Your task to perform on an android device: manage bookmarks in the chrome app Image 0: 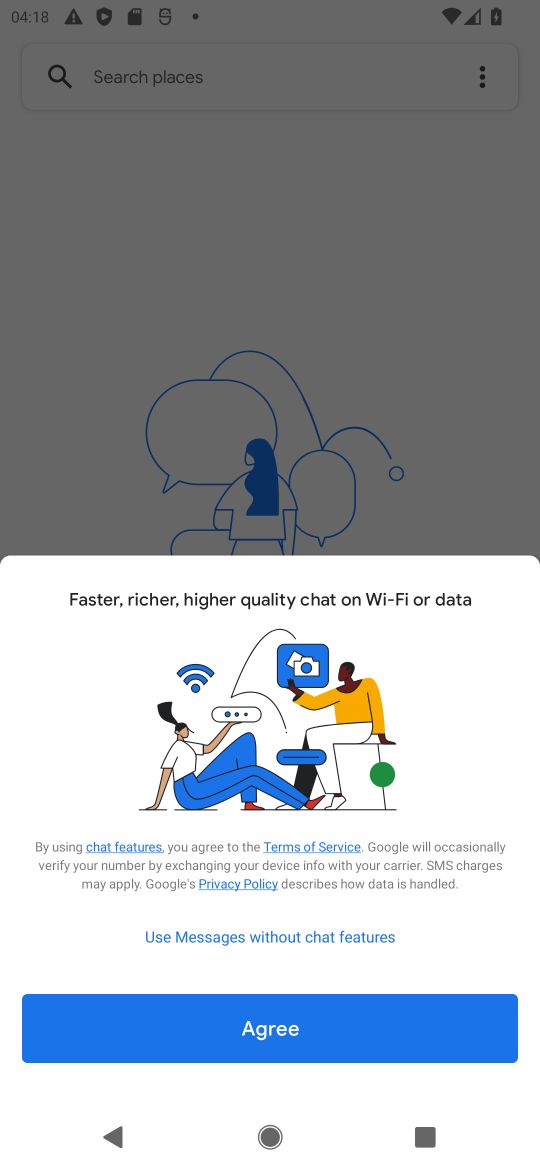
Step 0: press home button
Your task to perform on an android device: manage bookmarks in the chrome app Image 1: 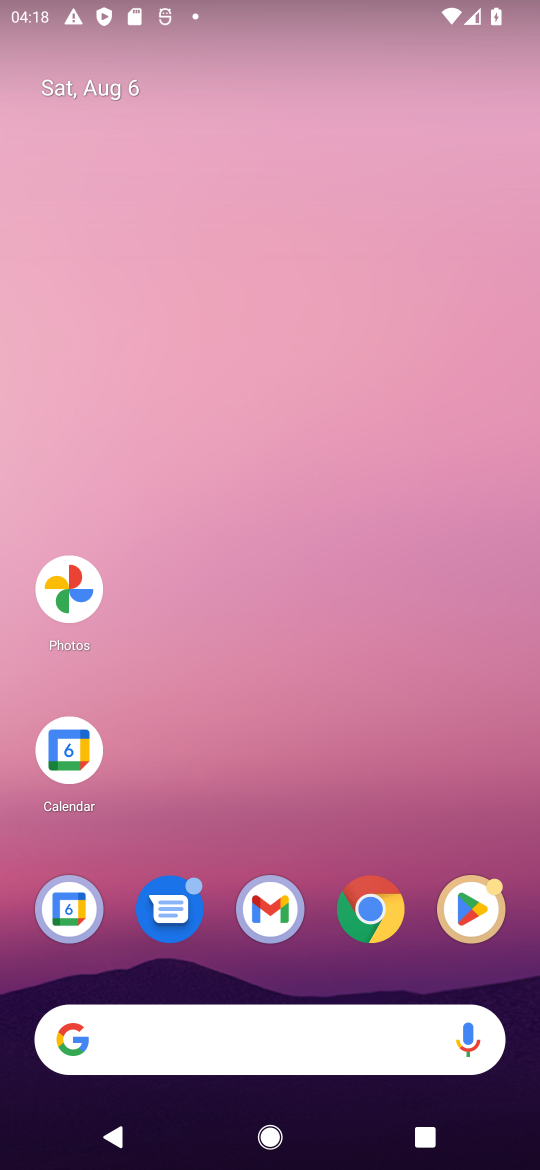
Step 1: click (360, 897)
Your task to perform on an android device: manage bookmarks in the chrome app Image 2: 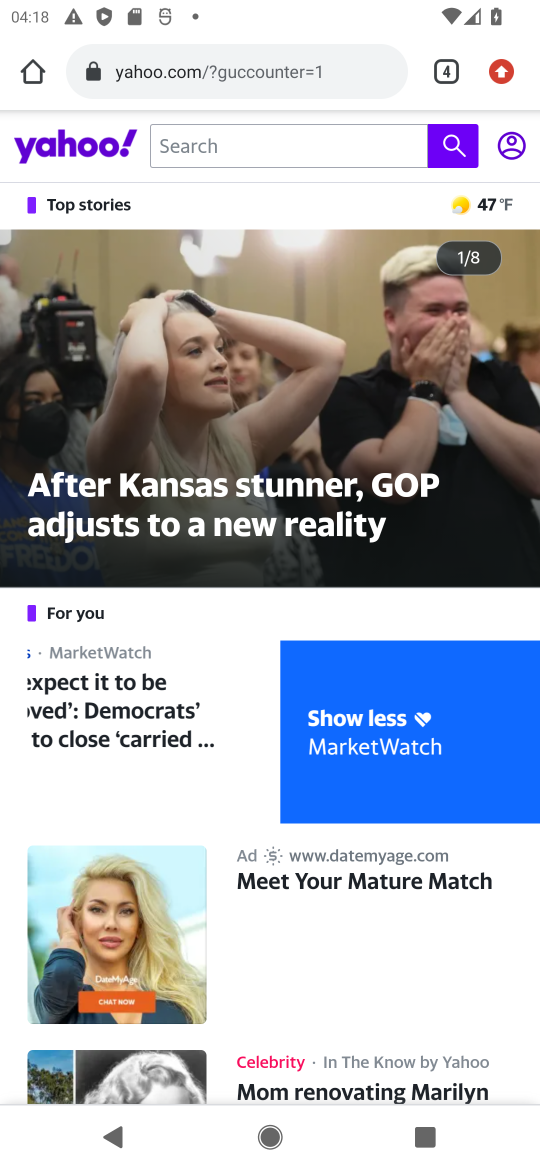
Step 2: click (505, 71)
Your task to perform on an android device: manage bookmarks in the chrome app Image 3: 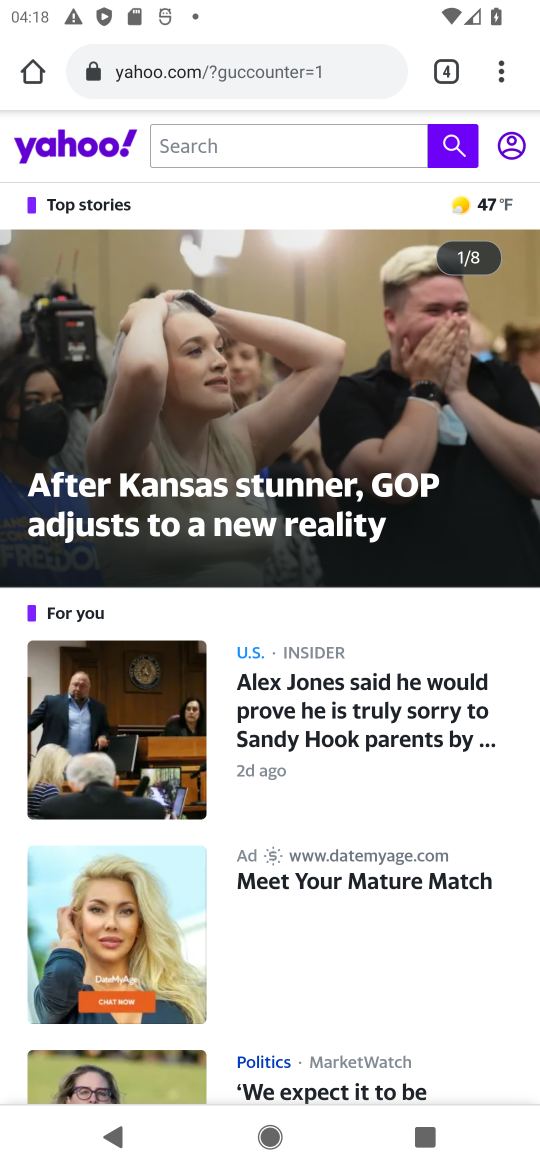
Step 3: click (502, 62)
Your task to perform on an android device: manage bookmarks in the chrome app Image 4: 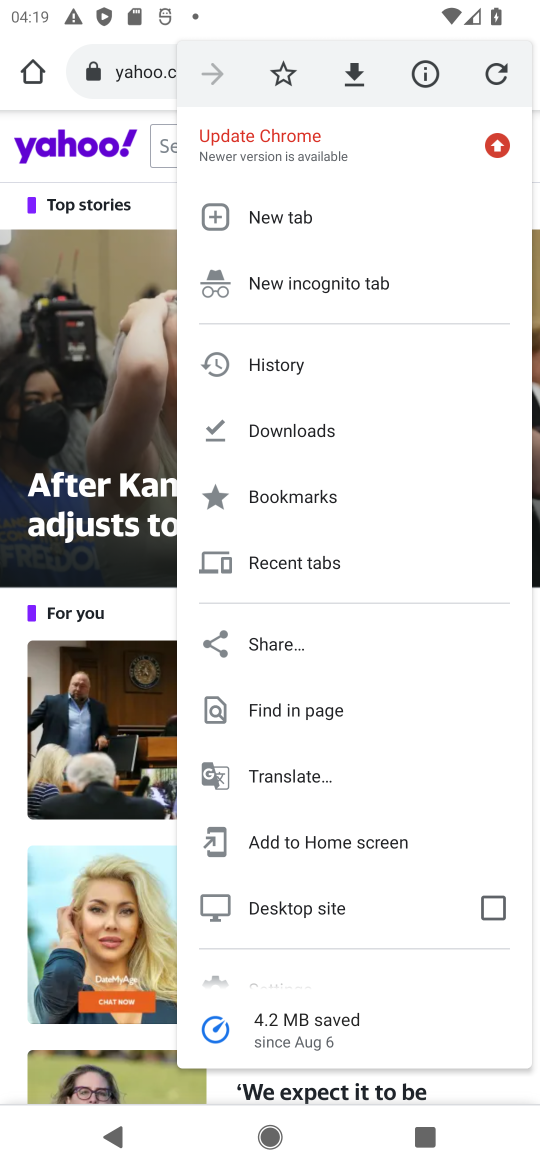
Step 4: click (292, 494)
Your task to perform on an android device: manage bookmarks in the chrome app Image 5: 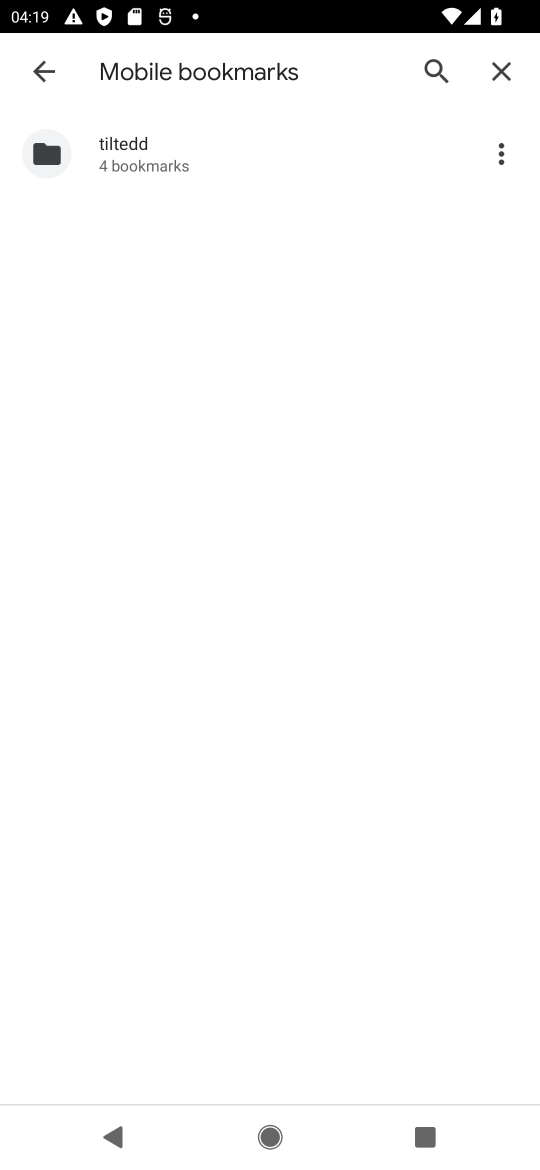
Step 5: click (498, 149)
Your task to perform on an android device: manage bookmarks in the chrome app Image 6: 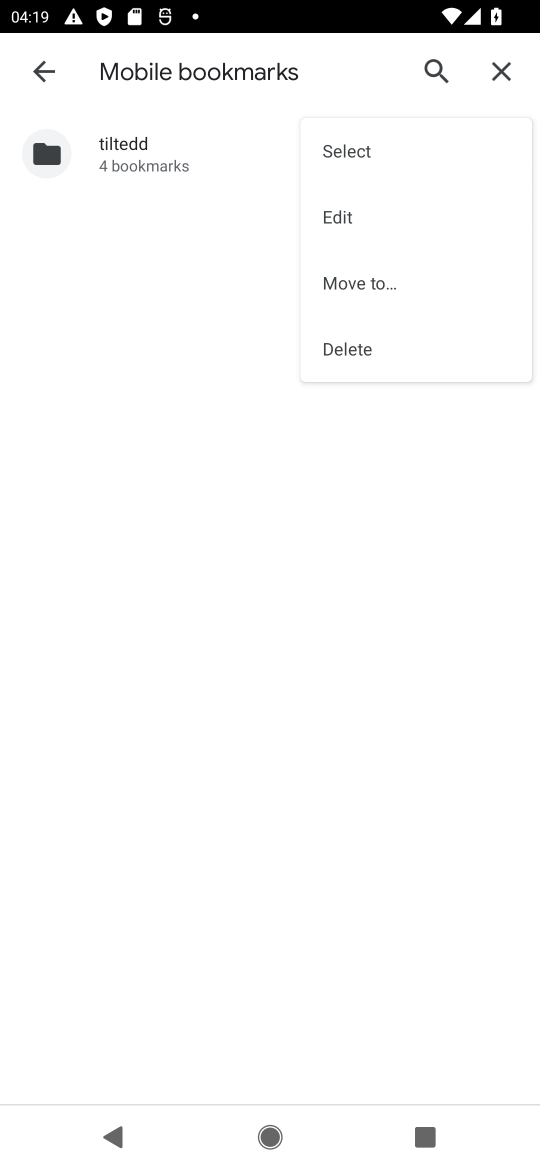
Step 6: click (336, 210)
Your task to perform on an android device: manage bookmarks in the chrome app Image 7: 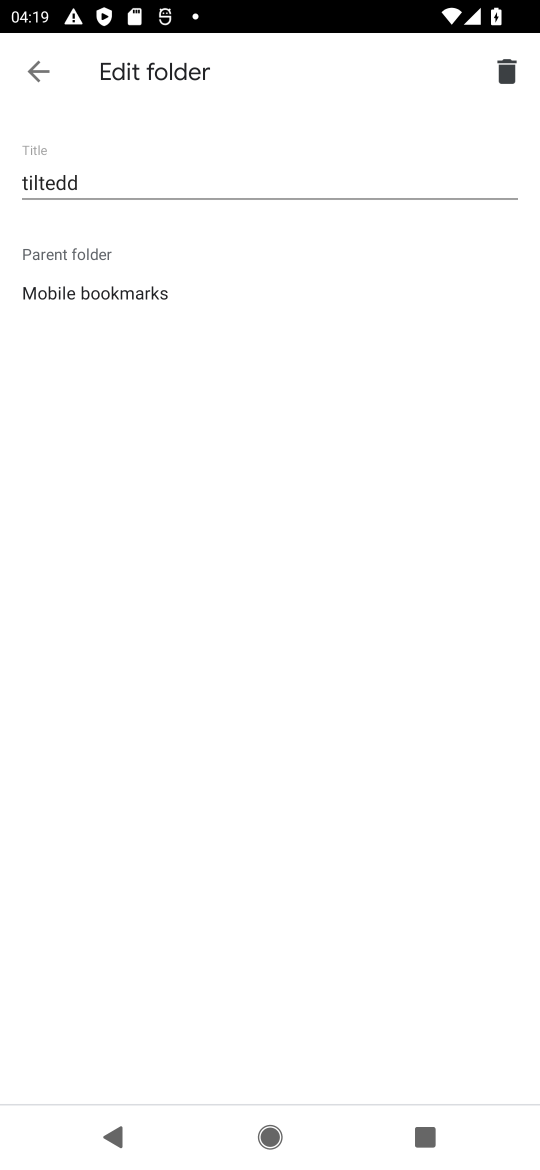
Step 7: task complete